Your task to perform on an android device: Open notification settings Image 0: 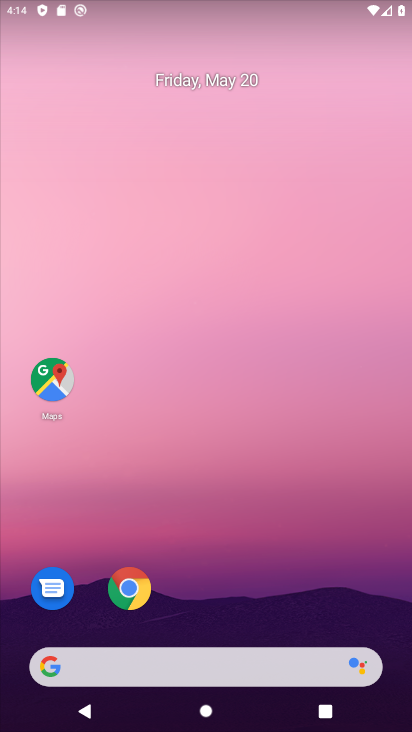
Step 0: drag from (270, 622) to (252, 43)
Your task to perform on an android device: Open notification settings Image 1: 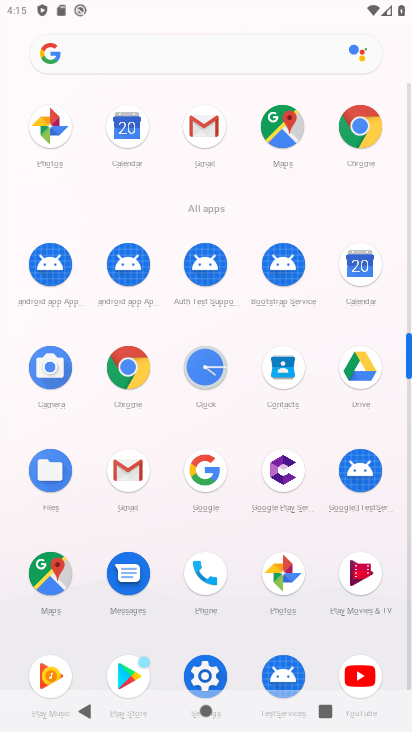
Step 1: click (210, 671)
Your task to perform on an android device: Open notification settings Image 2: 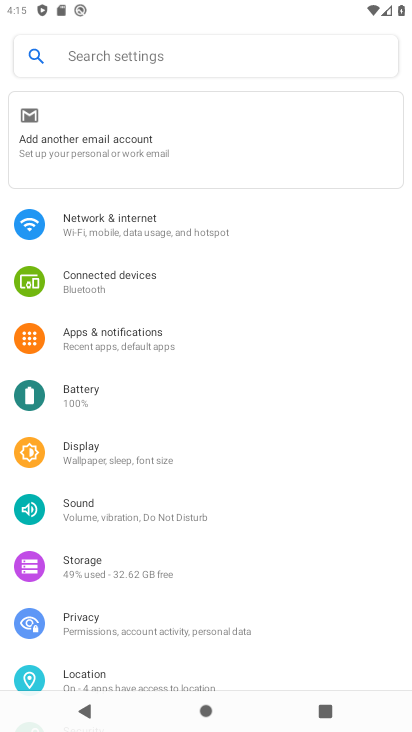
Step 2: click (104, 339)
Your task to perform on an android device: Open notification settings Image 3: 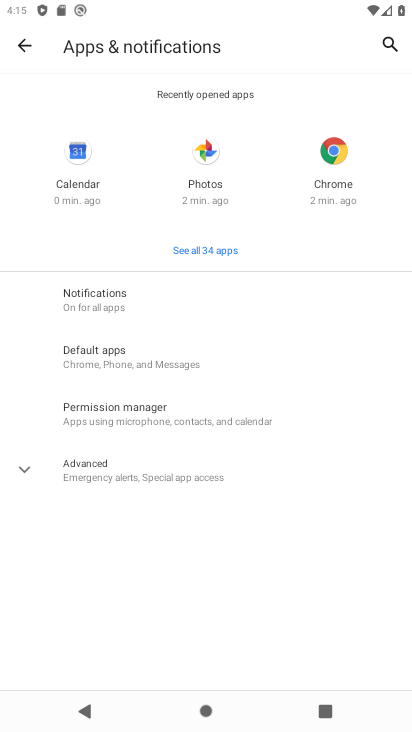
Step 3: click (97, 296)
Your task to perform on an android device: Open notification settings Image 4: 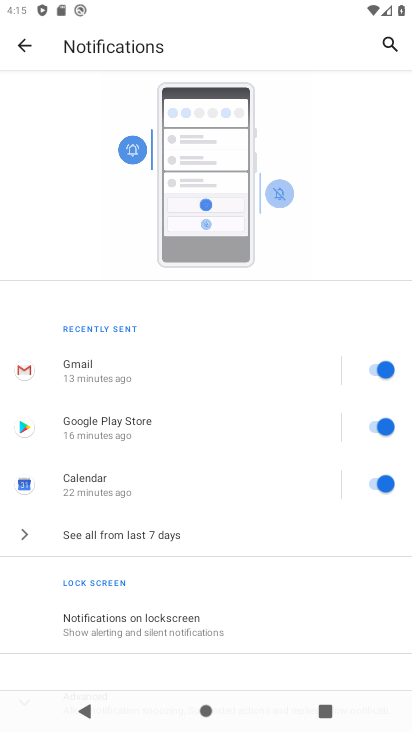
Step 4: task complete